Your task to perform on an android device: Open settings on Google Maps Image 0: 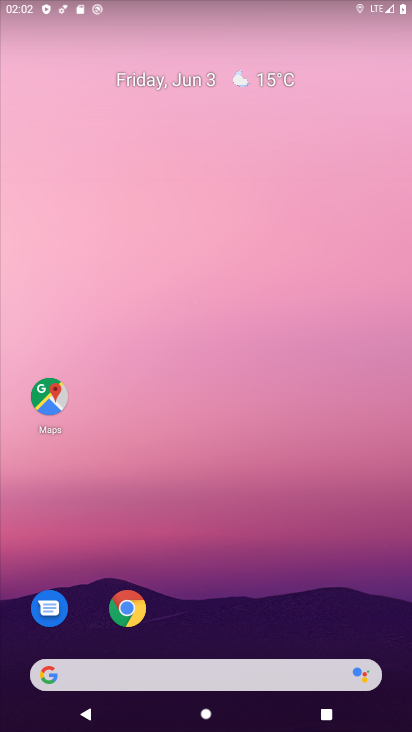
Step 0: click (45, 389)
Your task to perform on an android device: Open settings on Google Maps Image 1: 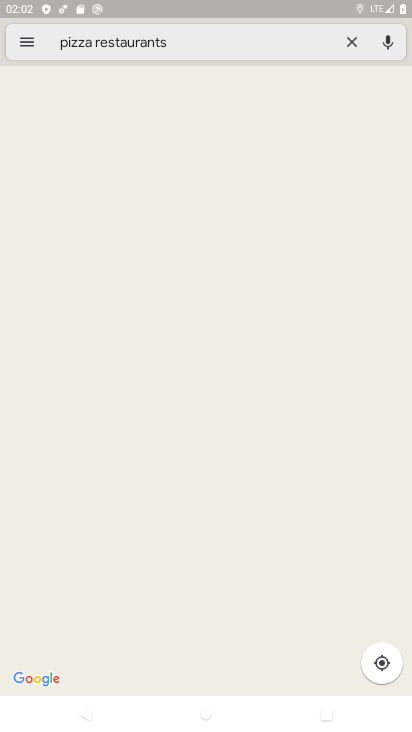
Step 1: click (26, 45)
Your task to perform on an android device: Open settings on Google Maps Image 2: 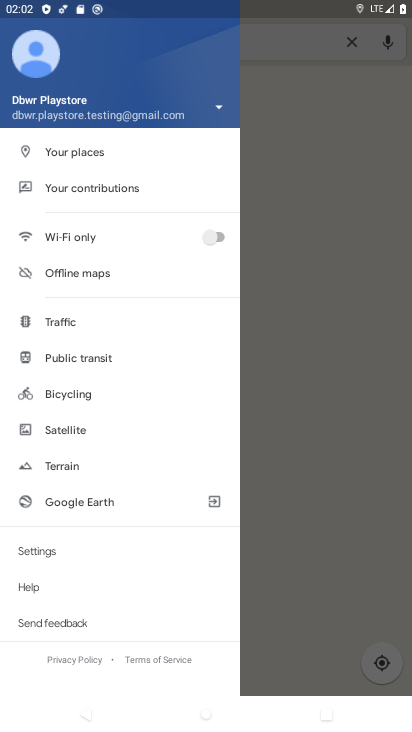
Step 2: drag from (73, 580) to (126, 254)
Your task to perform on an android device: Open settings on Google Maps Image 3: 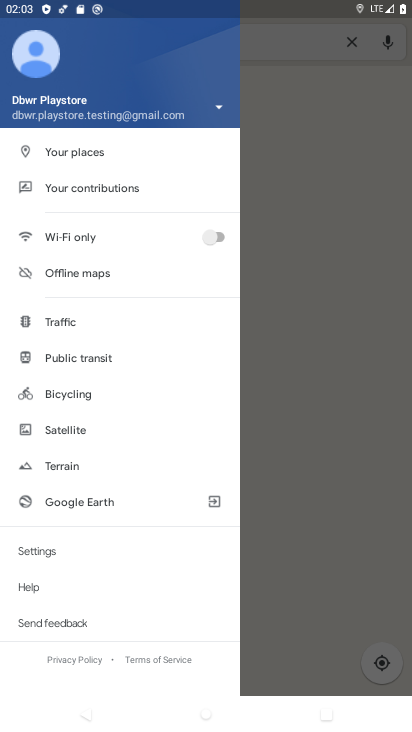
Step 3: click (45, 548)
Your task to perform on an android device: Open settings on Google Maps Image 4: 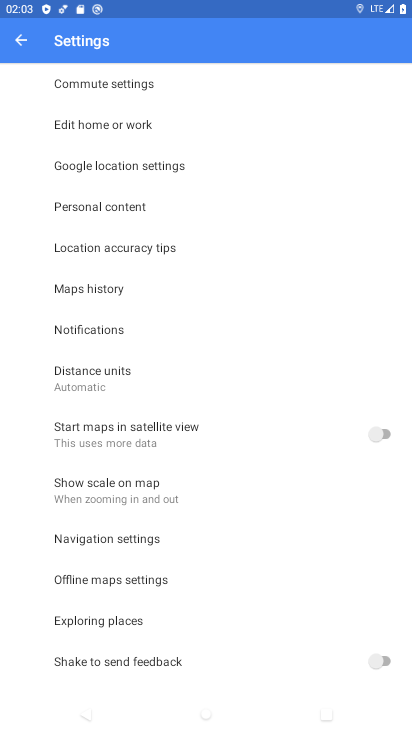
Step 4: task complete